Your task to perform on an android device: turn pop-ups off in chrome Image 0: 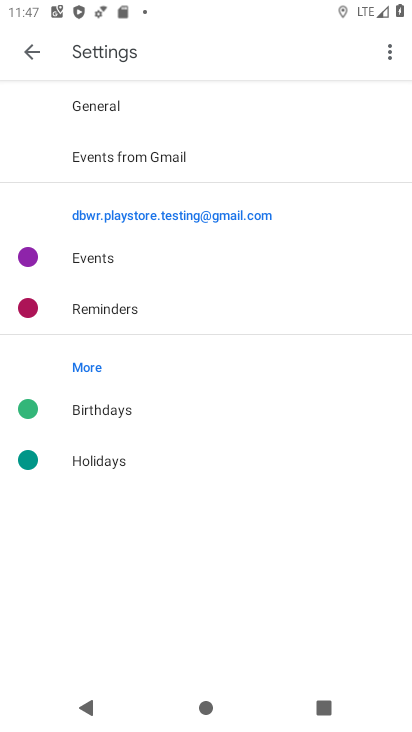
Step 0: press home button
Your task to perform on an android device: turn pop-ups off in chrome Image 1: 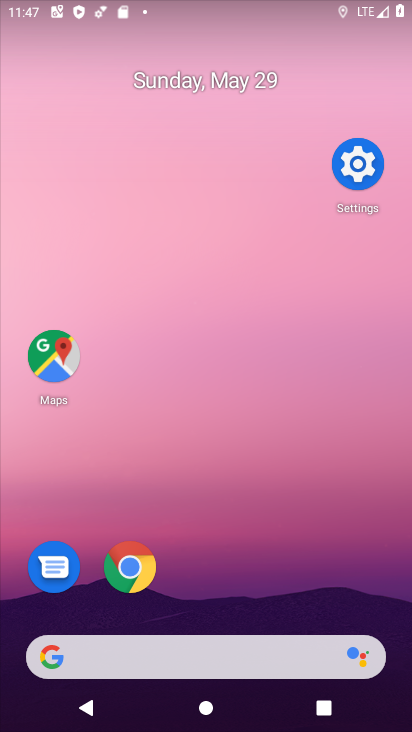
Step 1: drag from (304, 551) to (286, 239)
Your task to perform on an android device: turn pop-ups off in chrome Image 2: 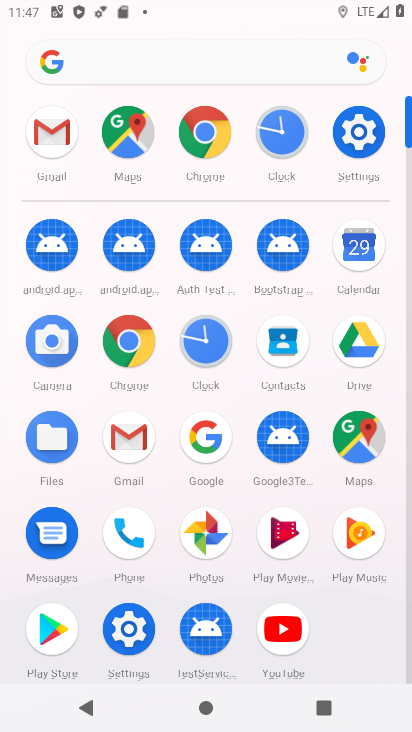
Step 2: click (141, 352)
Your task to perform on an android device: turn pop-ups off in chrome Image 3: 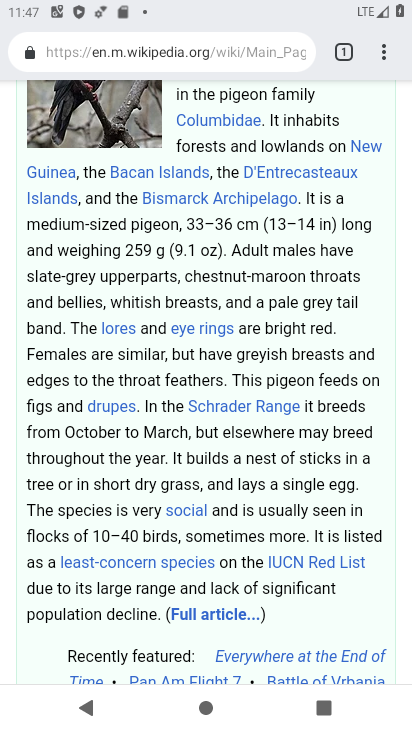
Step 3: drag from (387, 58) to (239, 603)
Your task to perform on an android device: turn pop-ups off in chrome Image 4: 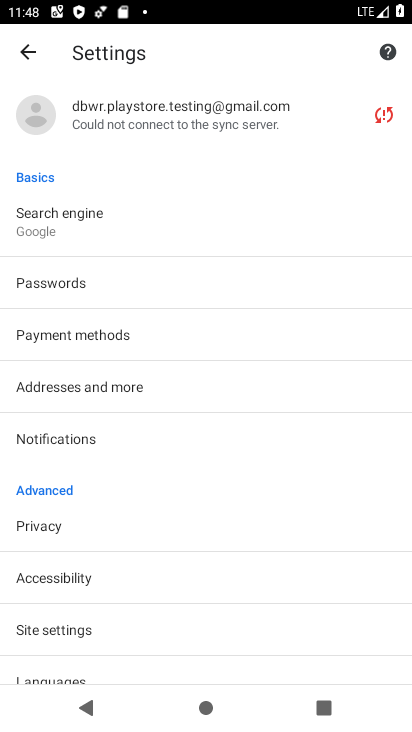
Step 4: drag from (201, 612) to (198, 363)
Your task to perform on an android device: turn pop-ups off in chrome Image 5: 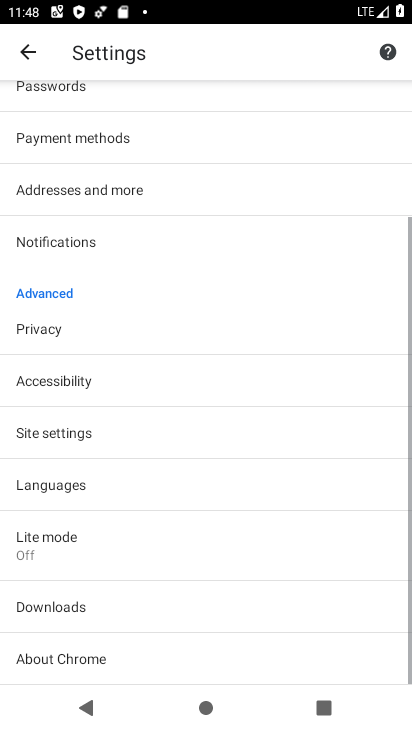
Step 5: click (108, 436)
Your task to perform on an android device: turn pop-ups off in chrome Image 6: 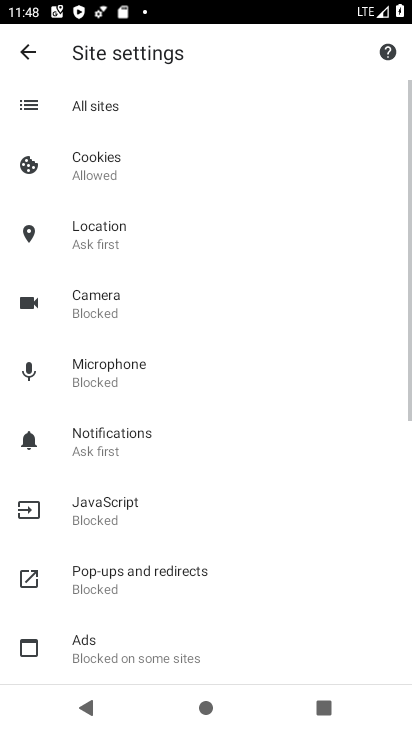
Step 6: click (150, 557)
Your task to perform on an android device: turn pop-ups off in chrome Image 7: 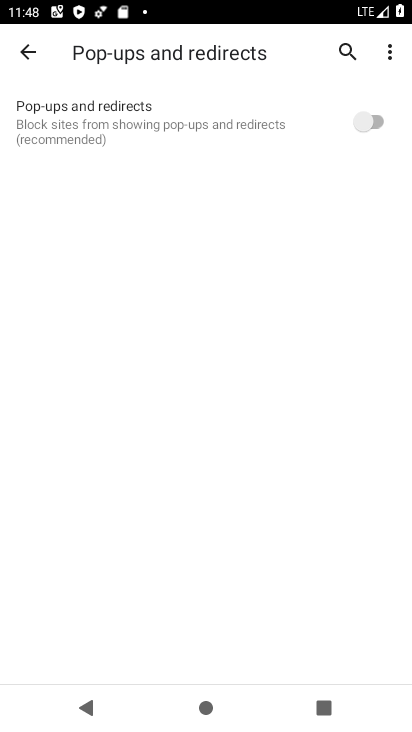
Step 7: task complete